Your task to perform on an android device: delete location history Image 0: 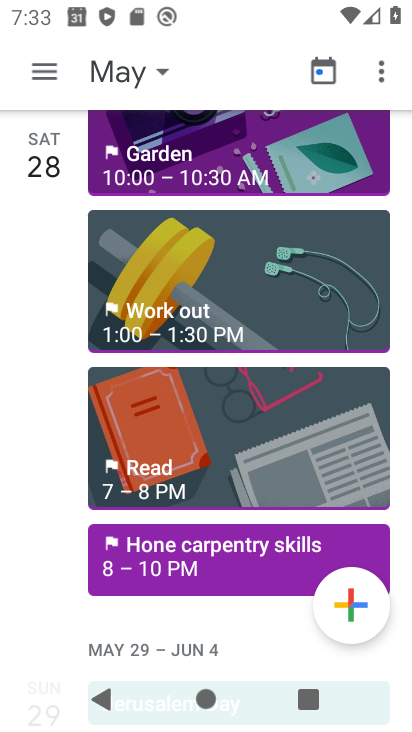
Step 0: press home button
Your task to perform on an android device: delete location history Image 1: 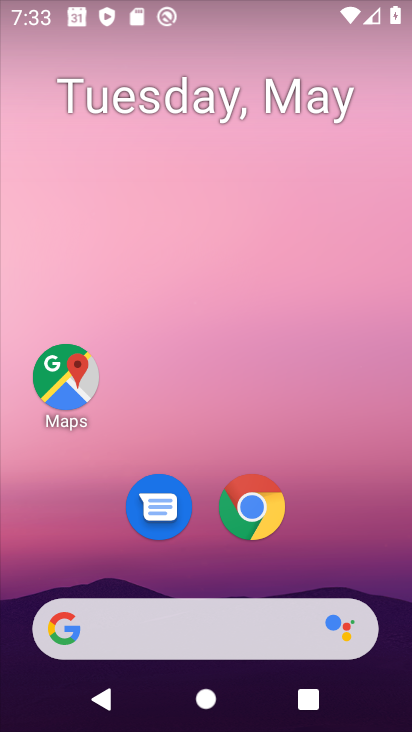
Step 1: click (59, 378)
Your task to perform on an android device: delete location history Image 2: 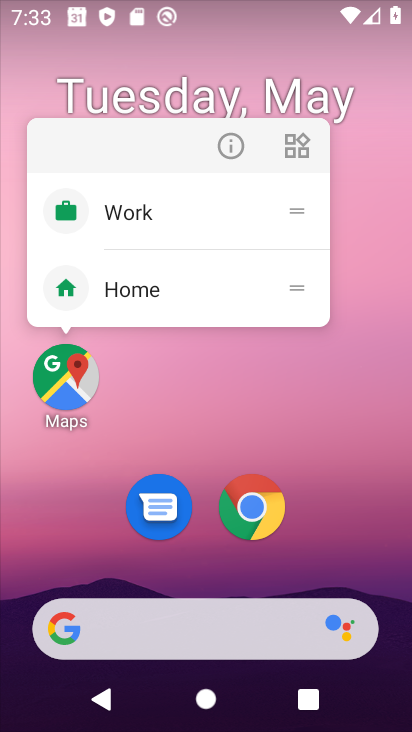
Step 2: click (59, 378)
Your task to perform on an android device: delete location history Image 3: 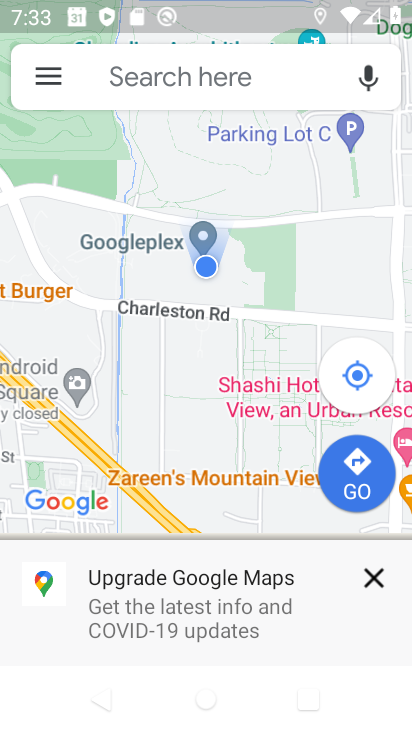
Step 3: click (38, 80)
Your task to perform on an android device: delete location history Image 4: 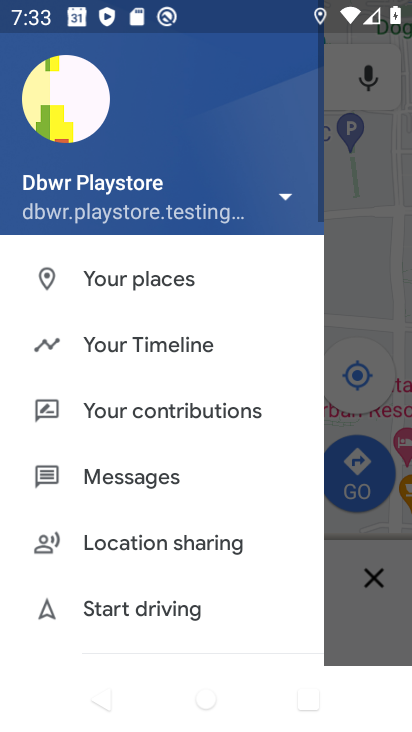
Step 4: click (173, 335)
Your task to perform on an android device: delete location history Image 5: 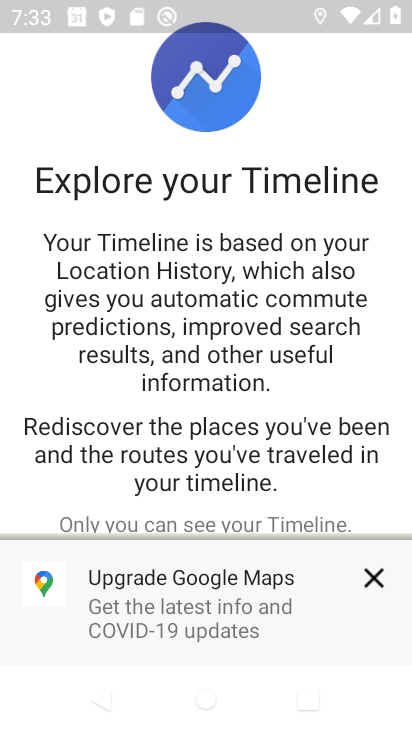
Step 5: click (382, 573)
Your task to perform on an android device: delete location history Image 6: 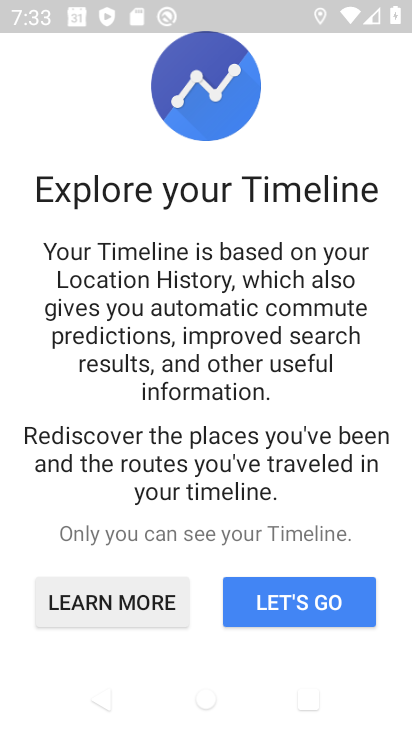
Step 6: drag from (198, 587) to (214, 334)
Your task to perform on an android device: delete location history Image 7: 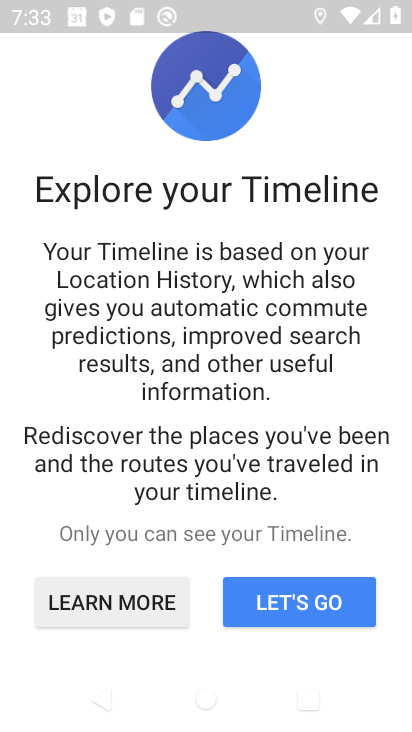
Step 7: click (261, 595)
Your task to perform on an android device: delete location history Image 8: 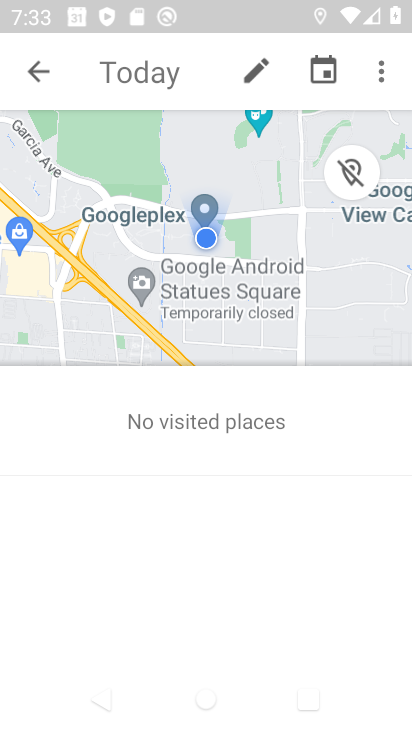
Step 8: click (374, 77)
Your task to perform on an android device: delete location history Image 9: 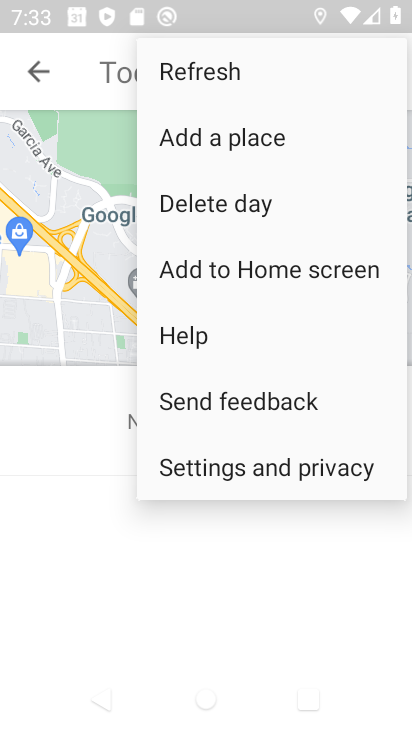
Step 9: click (274, 475)
Your task to perform on an android device: delete location history Image 10: 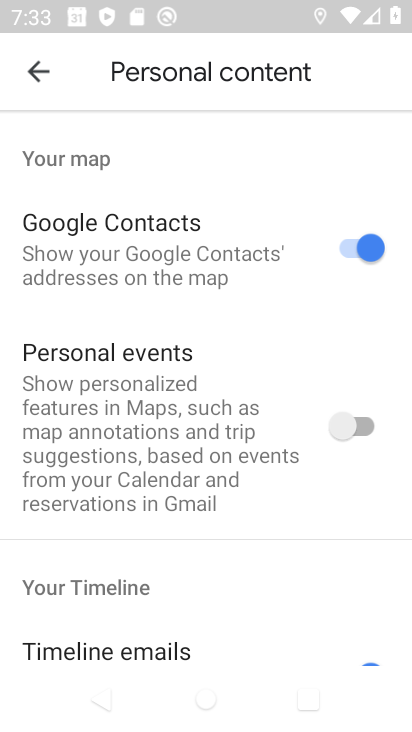
Step 10: drag from (226, 630) to (269, 143)
Your task to perform on an android device: delete location history Image 11: 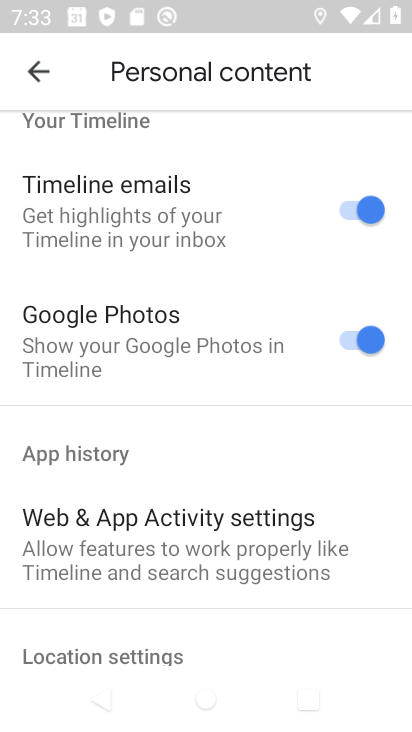
Step 11: drag from (224, 538) to (183, 259)
Your task to perform on an android device: delete location history Image 12: 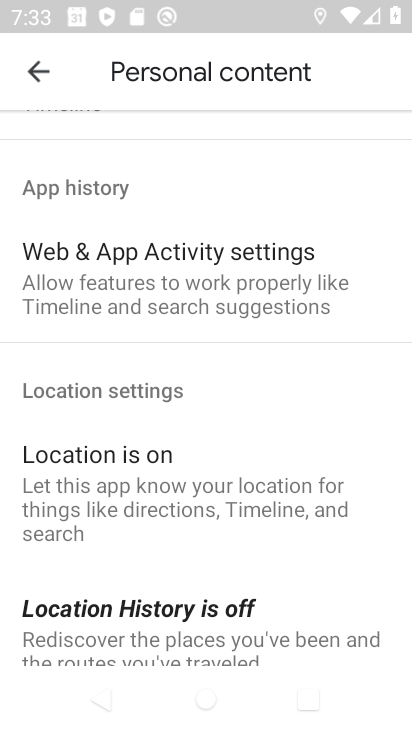
Step 12: drag from (187, 584) to (217, 318)
Your task to perform on an android device: delete location history Image 13: 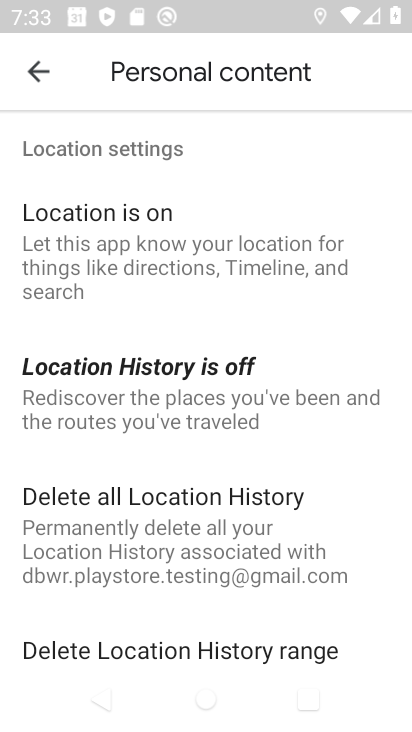
Step 13: click (186, 557)
Your task to perform on an android device: delete location history Image 14: 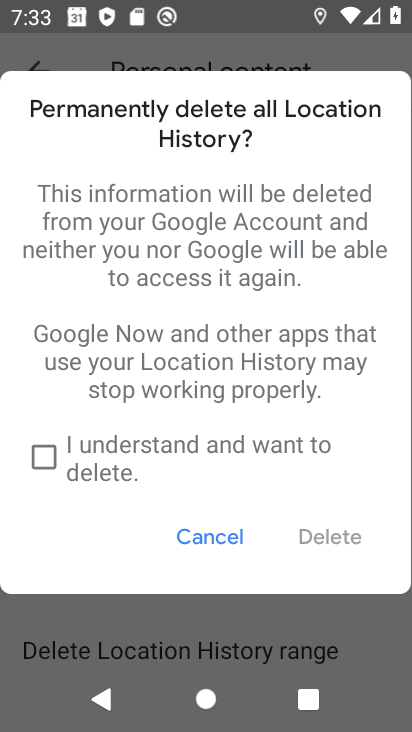
Step 14: click (109, 468)
Your task to perform on an android device: delete location history Image 15: 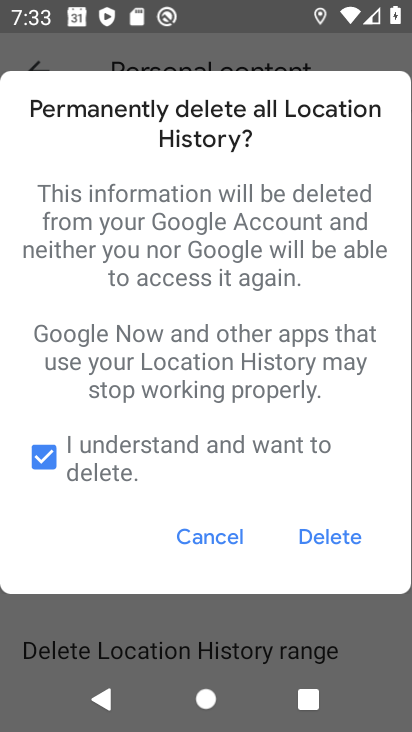
Step 15: click (314, 542)
Your task to perform on an android device: delete location history Image 16: 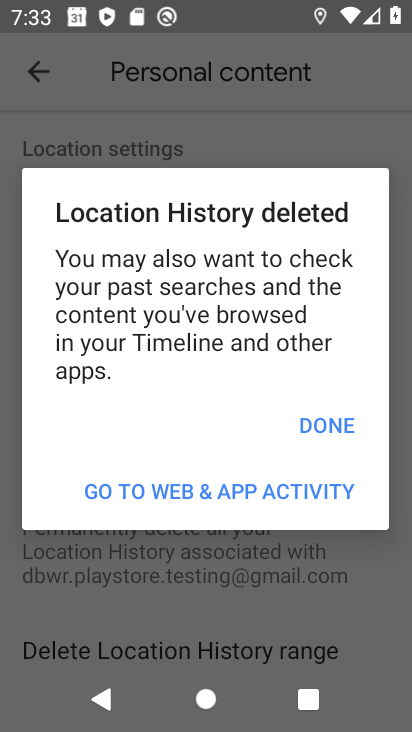
Step 16: task complete